Your task to perform on an android device: Go to internet settings Image 0: 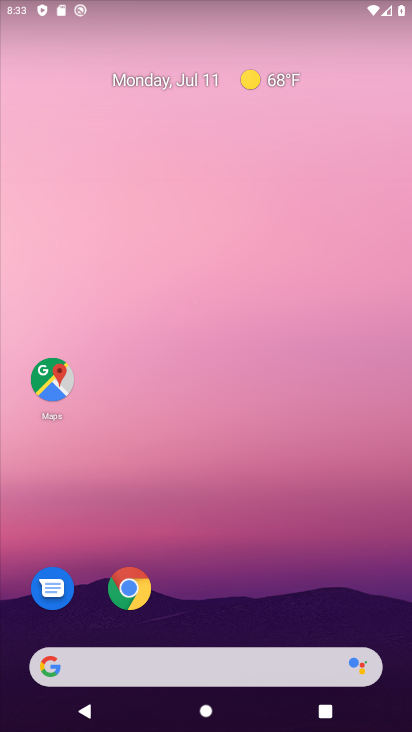
Step 0: drag from (199, 606) to (197, 68)
Your task to perform on an android device: Go to internet settings Image 1: 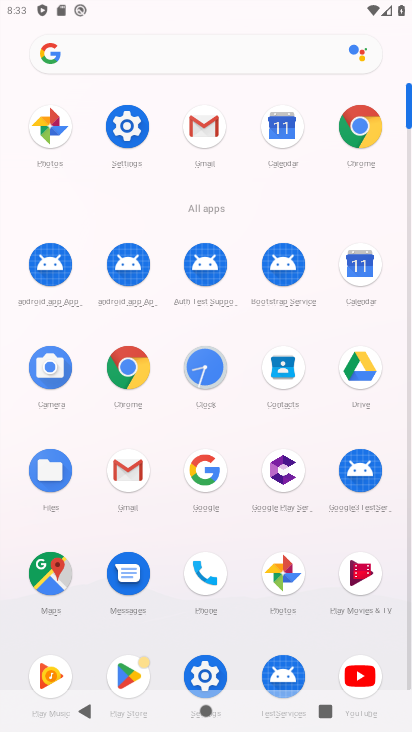
Step 1: click (204, 659)
Your task to perform on an android device: Go to internet settings Image 2: 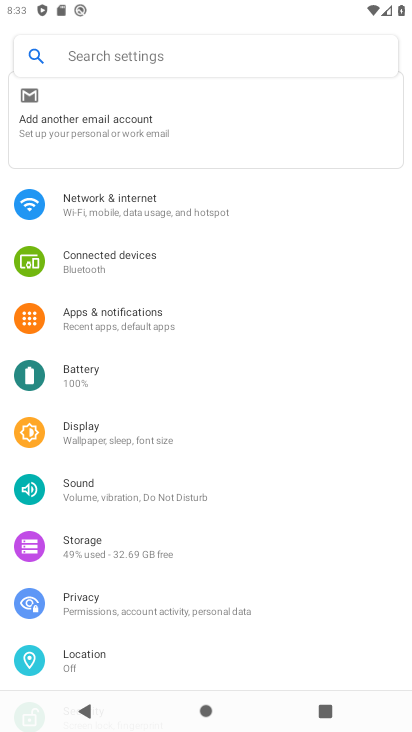
Step 2: click (76, 209)
Your task to perform on an android device: Go to internet settings Image 3: 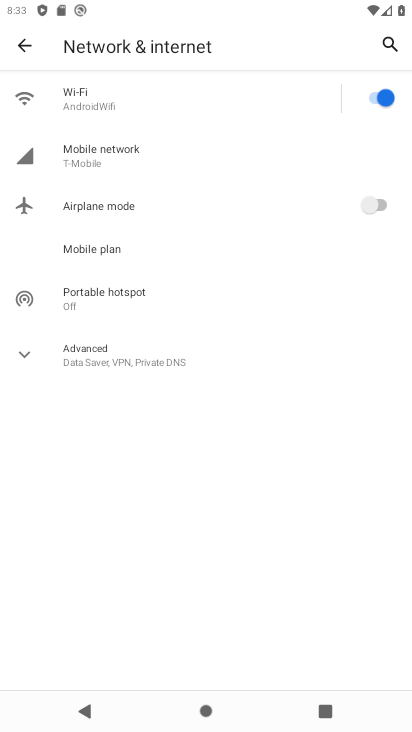
Step 3: click (92, 139)
Your task to perform on an android device: Go to internet settings Image 4: 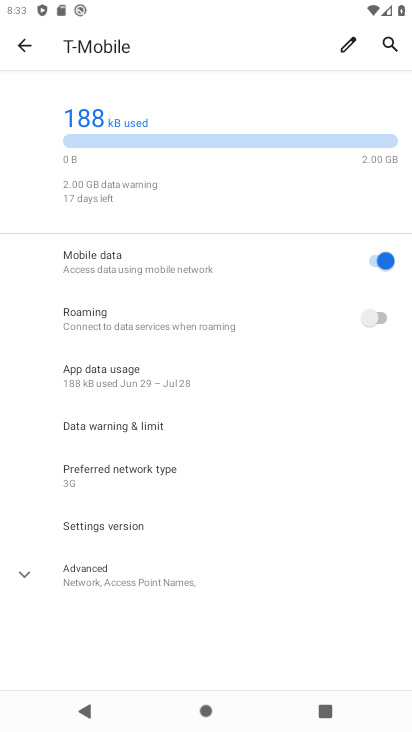
Step 4: task complete